Your task to perform on an android device: Open Maps and search for coffee Image 0: 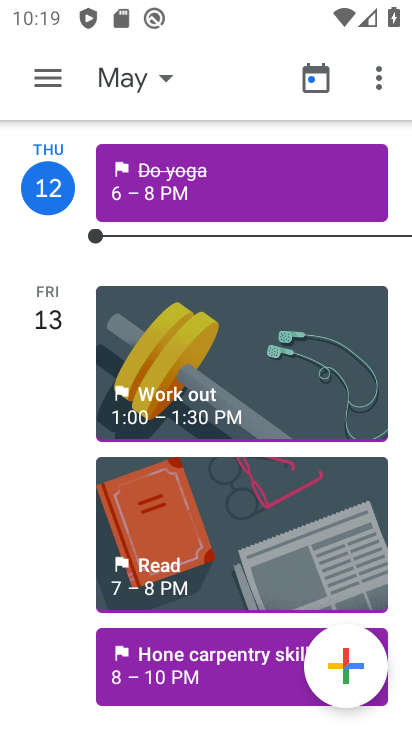
Step 0: press home button
Your task to perform on an android device: Open Maps and search for coffee Image 1: 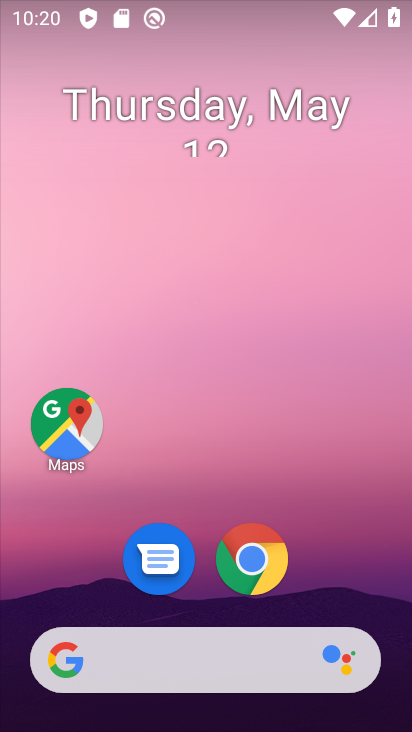
Step 1: click (72, 409)
Your task to perform on an android device: Open Maps and search for coffee Image 2: 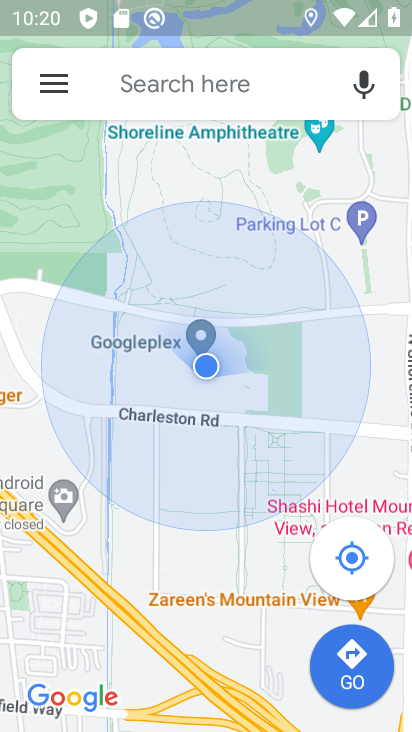
Step 2: click (172, 99)
Your task to perform on an android device: Open Maps and search for coffee Image 3: 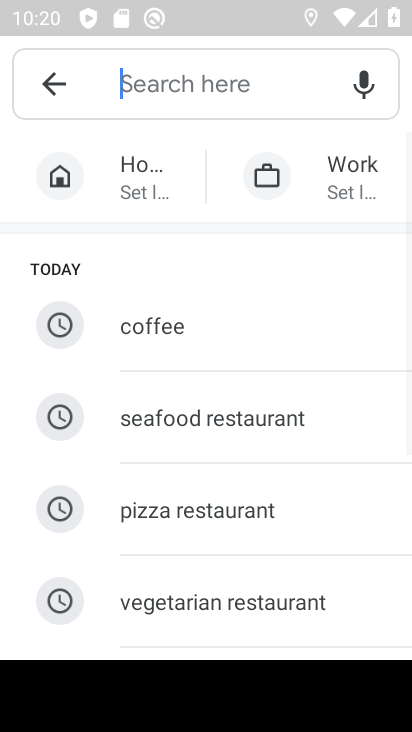
Step 3: click (135, 305)
Your task to perform on an android device: Open Maps and search for coffee Image 4: 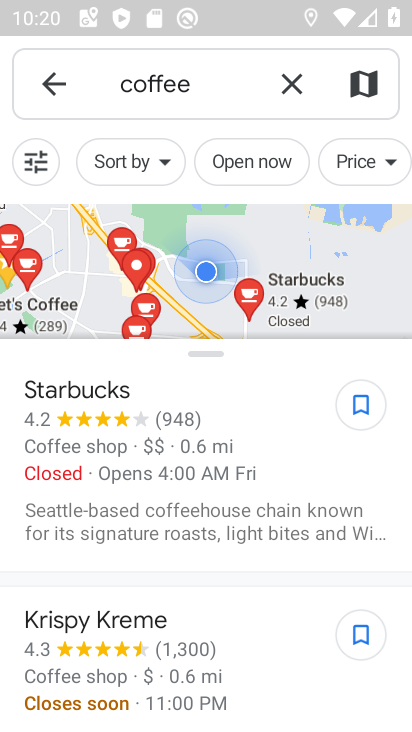
Step 4: task complete